Your task to perform on an android device: Open my contact list Image 0: 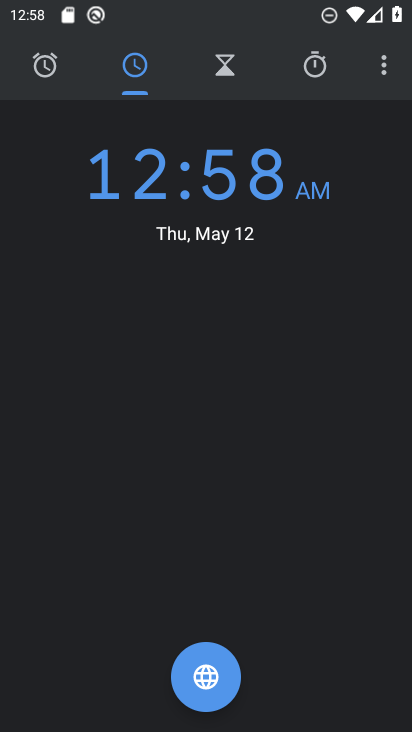
Step 0: press home button
Your task to perform on an android device: Open my contact list Image 1: 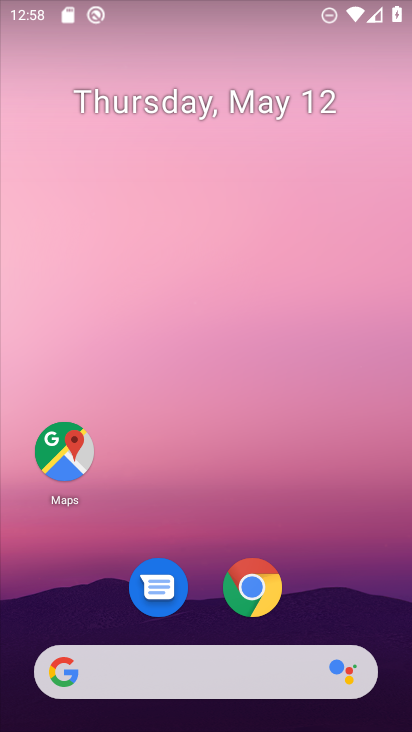
Step 1: drag from (316, 574) to (251, 60)
Your task to perform on an android device: Open my contact list Image 2: 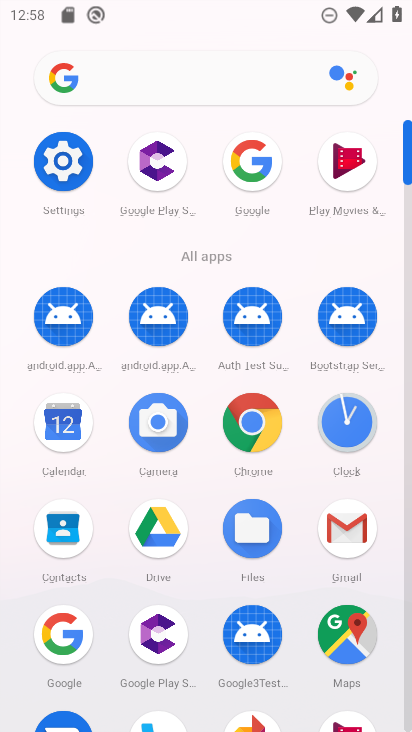
Step 2: click (64, 528)
Your task to perform on an android device: Open my contact list Image 3: 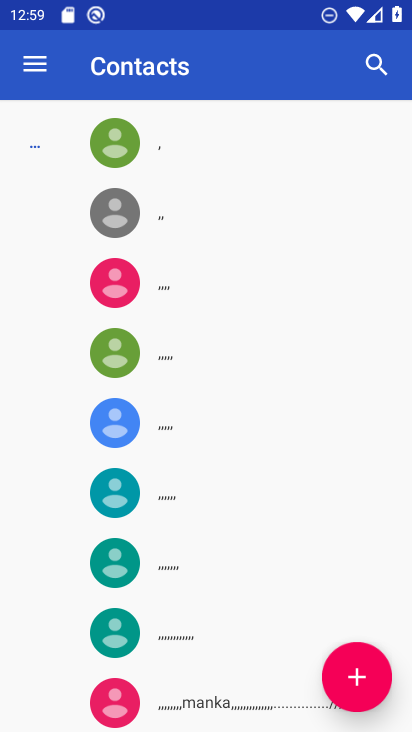
Step 3: task complete